Your task to perform on an android device: Show me recent news Image 0: 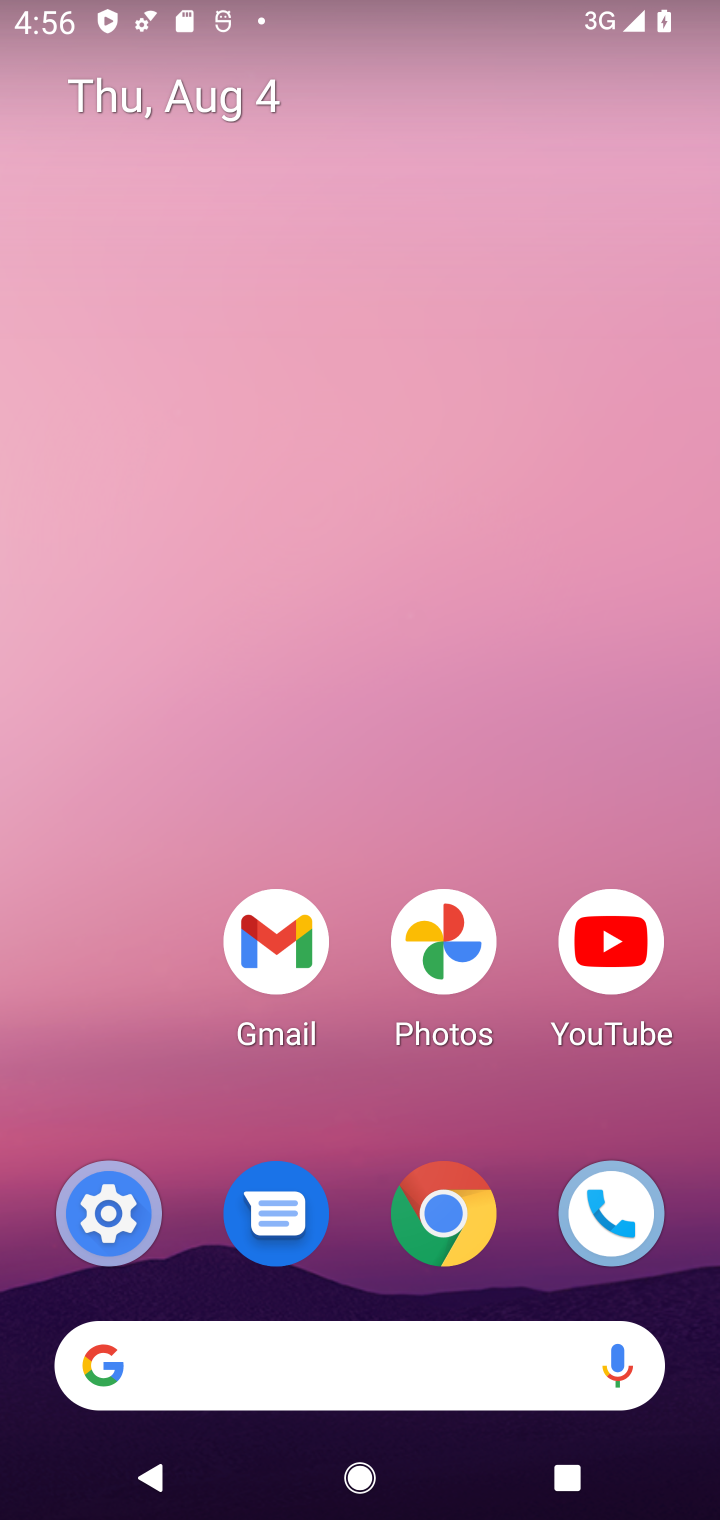
Step 0: press home button
Your task to perform on an android device: Show me recent news Image 1: 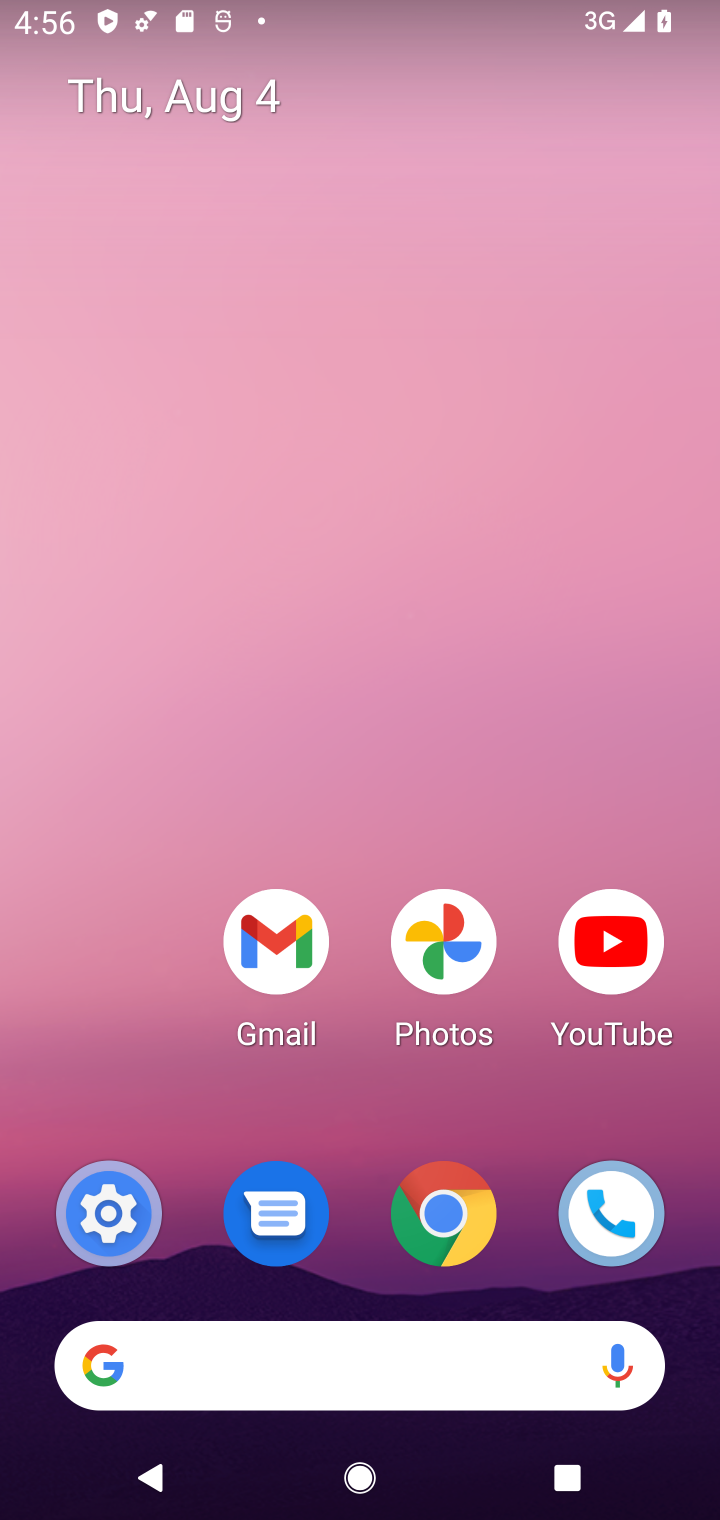
Step 1: task complete